Your task to perform on an android device: open device folders in google photos Image 0: 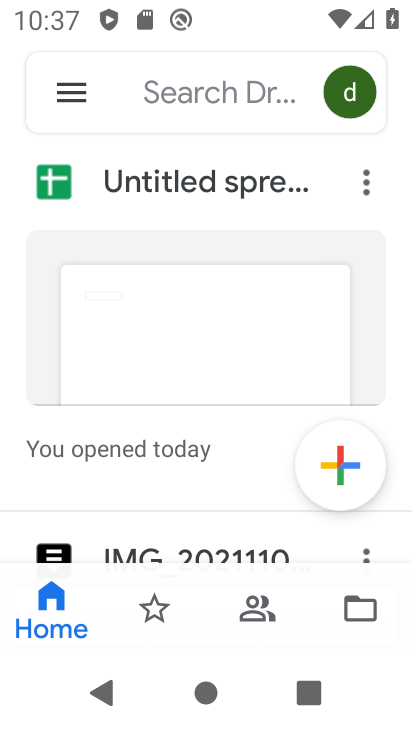
Step 0: press home button
Your task to perform on an android device: open device folders in google photos Image 1: 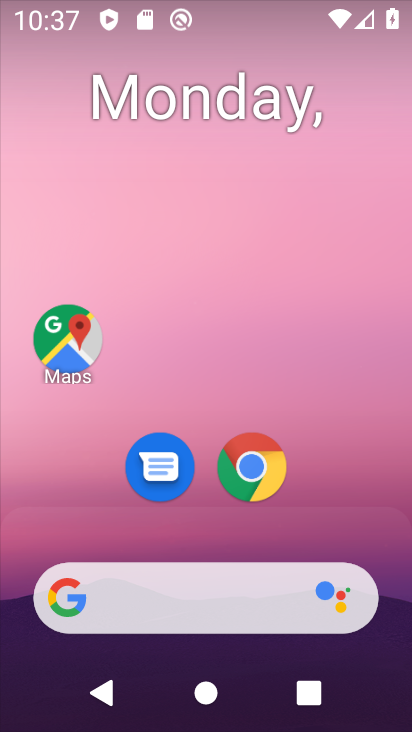
Step 1: drag from (85, 579) to (185, 51)
Your task to perform on an android device: open device folders in google photos Image 2: 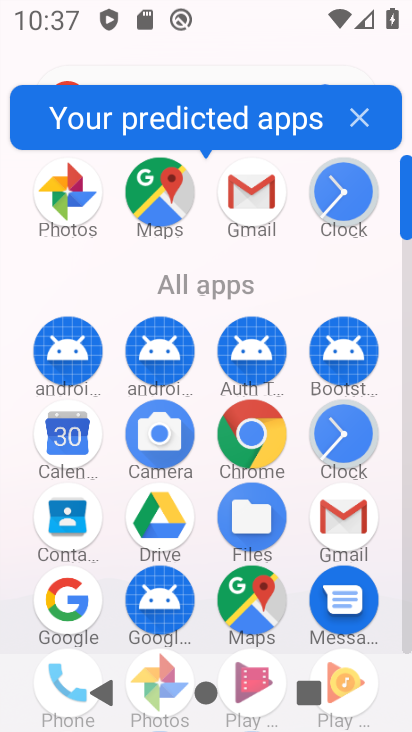
Step 2: drag from (153, 622) to (216, 378)
Your task to perform on an android device: open device folders in google photos Image 3: 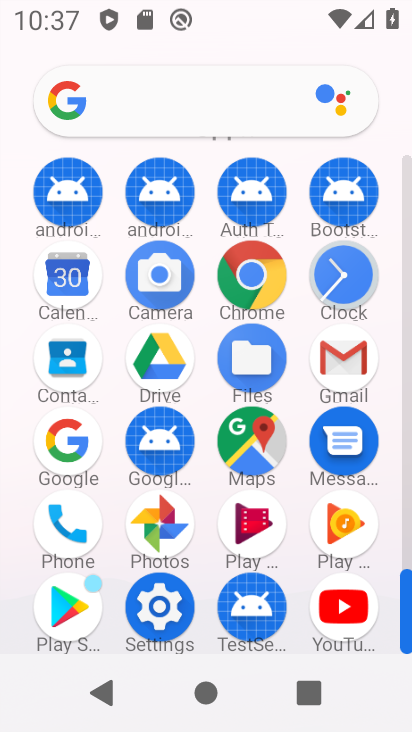
Step 3: click (158, 521)
Your task to perform on an android device: open device folders in google photos Image 4: 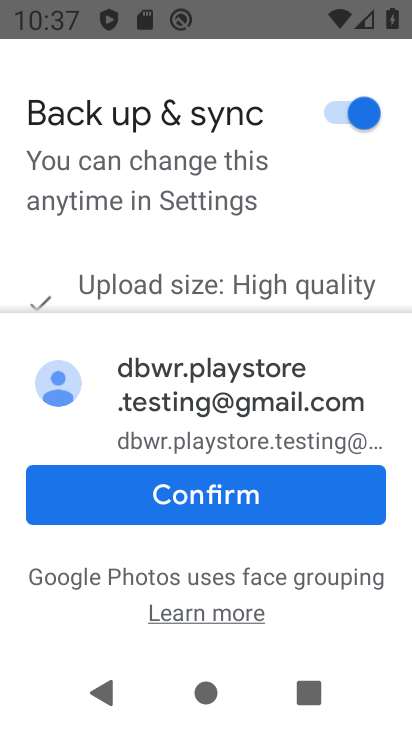
Step 4: click (244, 512)
Your task to perform on an android device: open device folders in google photos Image 5: 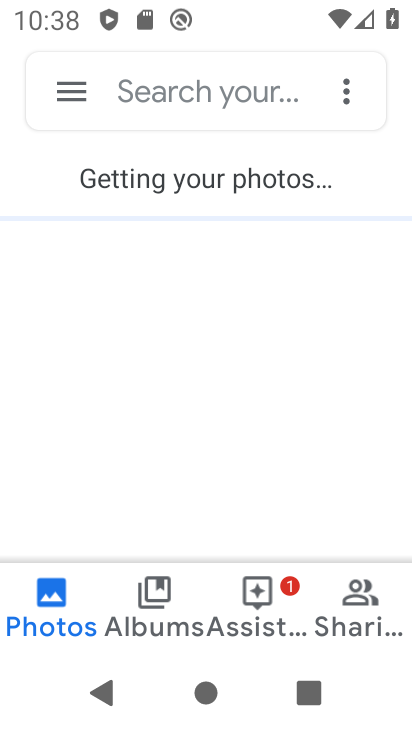
Step 5: click (77, 85)
Your task to perform on an android device: open device folders in google photos Image 6: 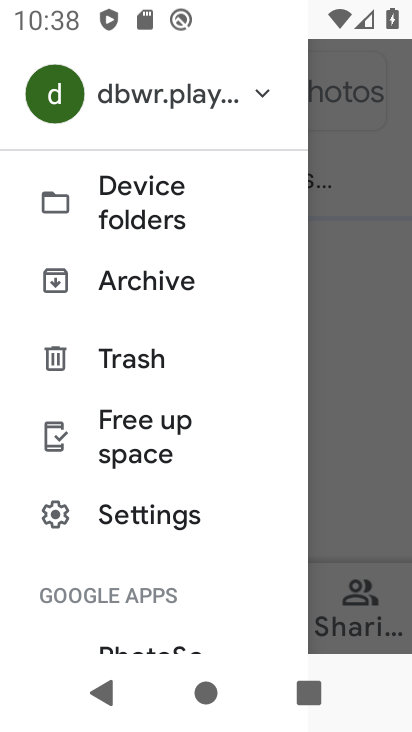
Step 6: click (115, 189)
Your task to perform on an android device: open device folders in google photos Image 7: 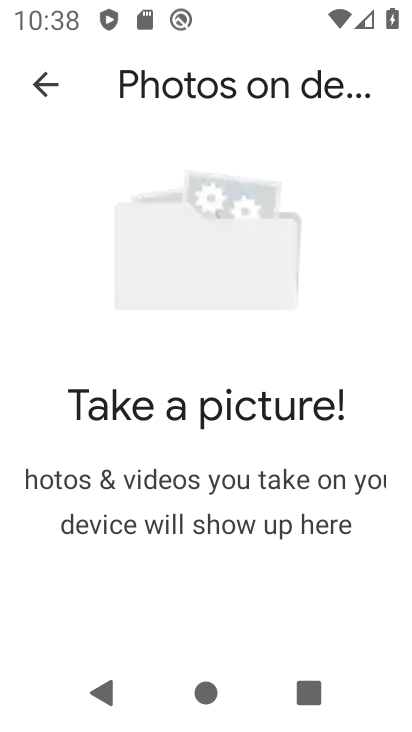
Step 7: task complete